Your task to perform on an android device: turn off notifications settings in the gmail app Image 0: 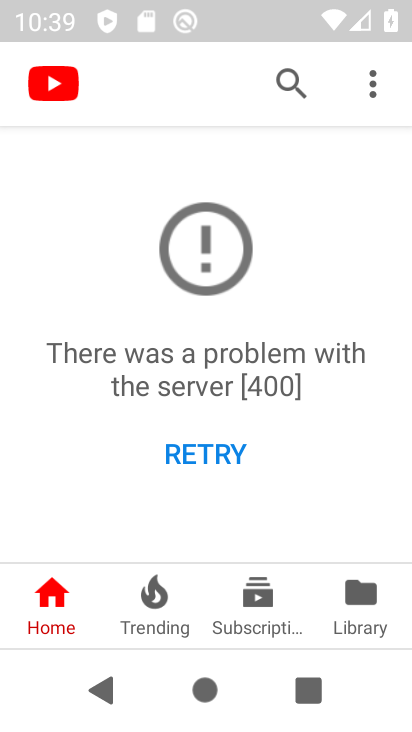
Step 0: press home button
Your task to perform on an android device: turn off notifications settings in the gmail app Image 1: 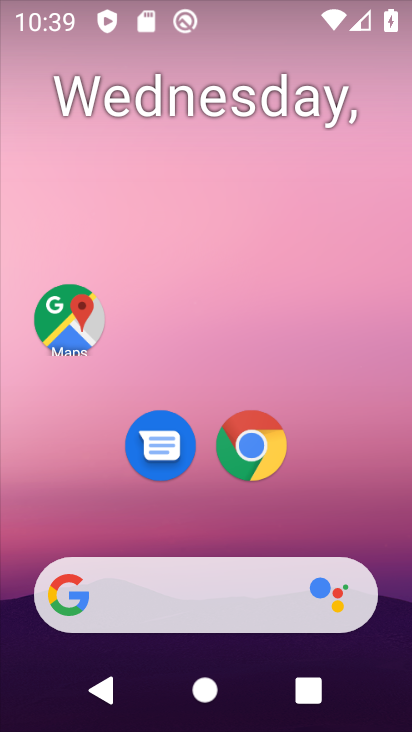
Step 1: drag from (200, 526) to (266, 81)
Your task to perform on an android device: turn off notifications settings in the gmail app Image 2: 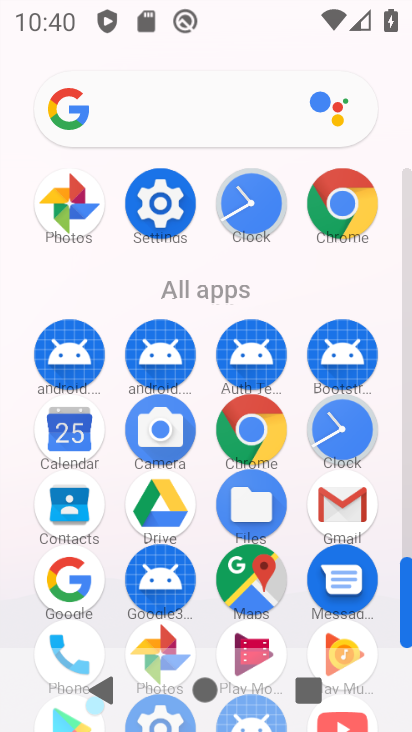
Step 2: click (341, 510)
Your task to perform on an android device: turn off notifications settings in the gmail app Image 3: 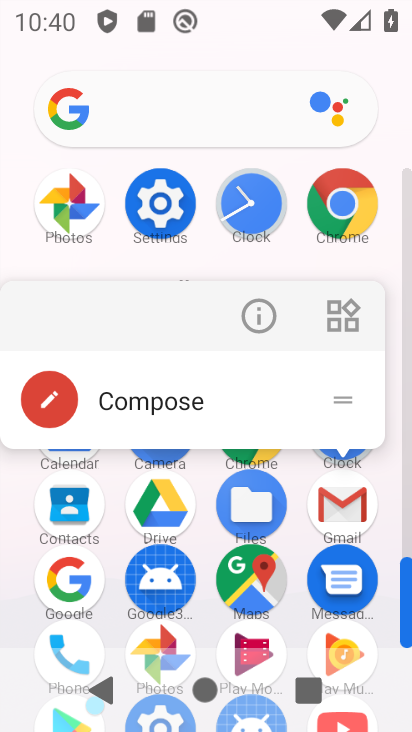
Step 3: click (260, 317)
Your task to perform on an android device: turn off notifications settings in the gmail app Image 4: 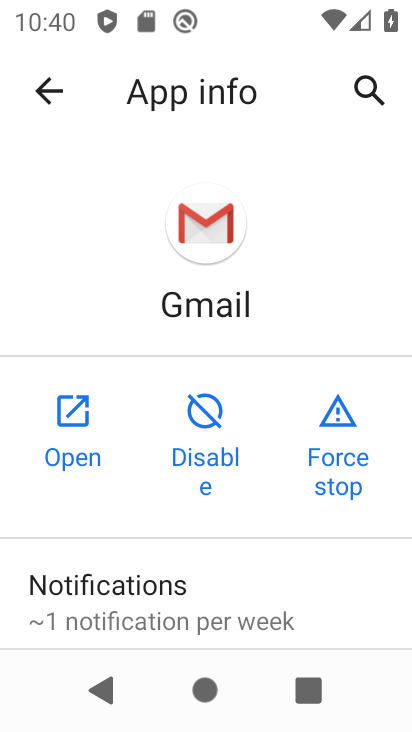
Step 4: click (185, 600)
Your task to perform on an android device: turn off notifications settings in the gmail app Image 5: 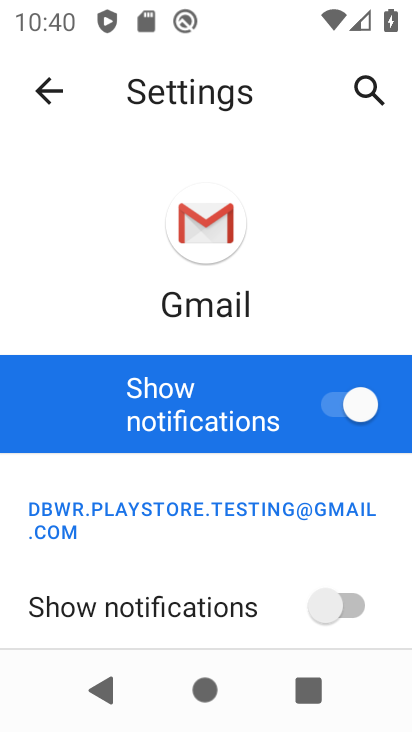
Step 5: click (362, 399)
Your task to perform on an android device: turn off notifications settings in the gmail app Image 6: 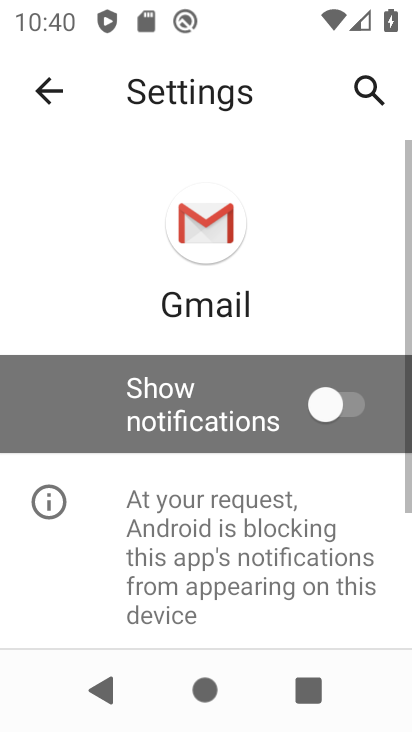
Step 6: task complete